Your task to perform on an android device: Open eBay Image 0: 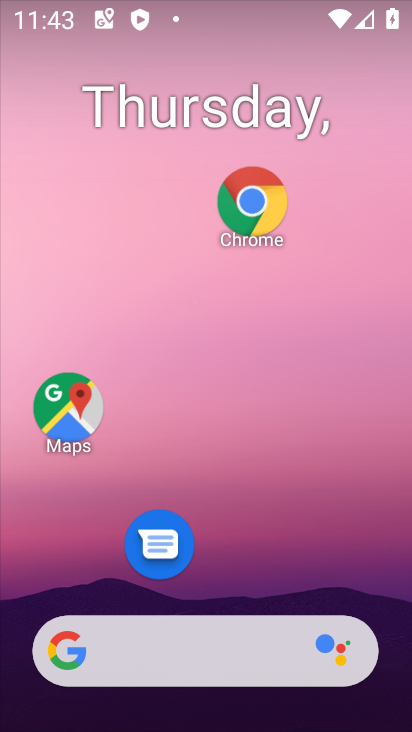
Step 0: click (250, 188)
Your task to perform on an android device: Open eBay Image 1: 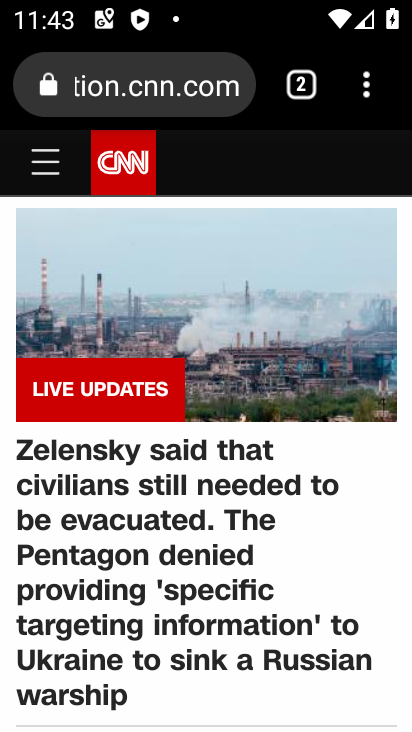
Step 1: click (308, 71)
Your task to perform on an android device: Open eBay Image 2: 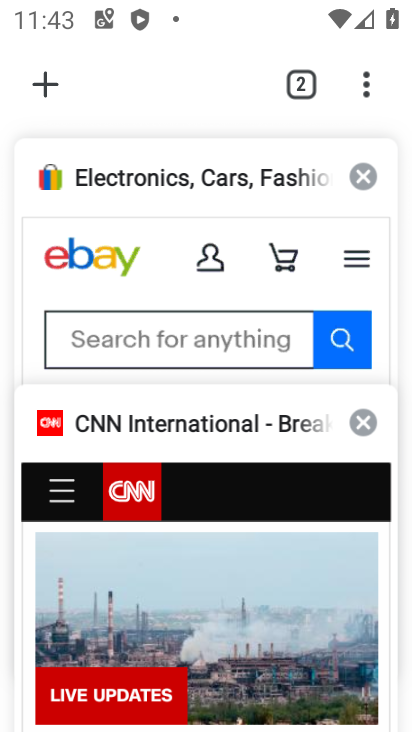
Step 2: click (362, 171)
Your task to perform on an android device: Open eBay Image 3: 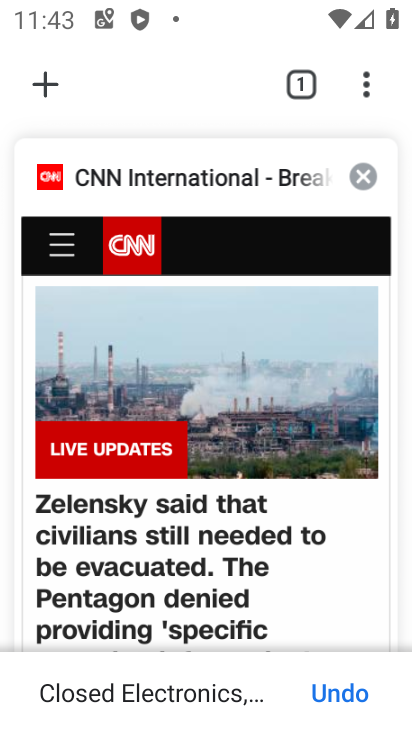
Step 3: click (362, 171)
Your task to perform on an android device: Open eBay Image 4: 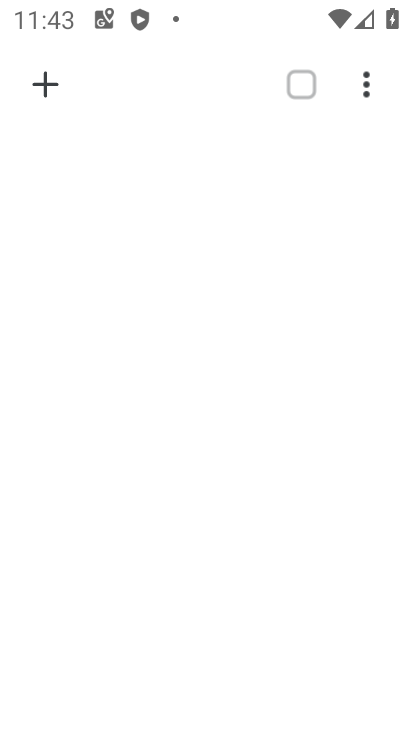
Step 4: click (51, 90)
Your task to perform on an android device: Open eBay Image 5: 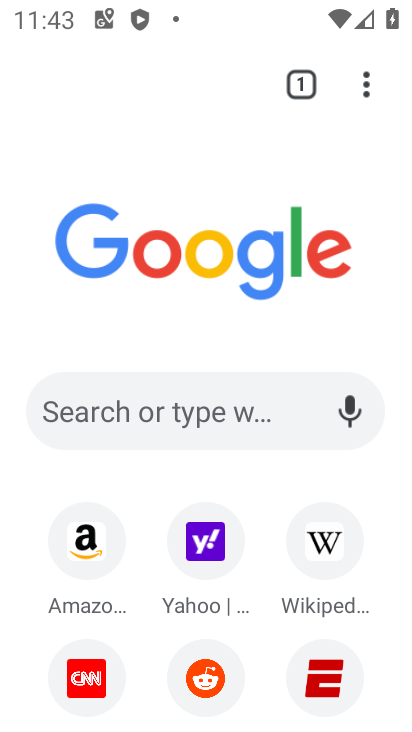
Step 5: drag from (151, 630) to (171, 154)
Your task to perform on an android device: Open eBay Image 6: 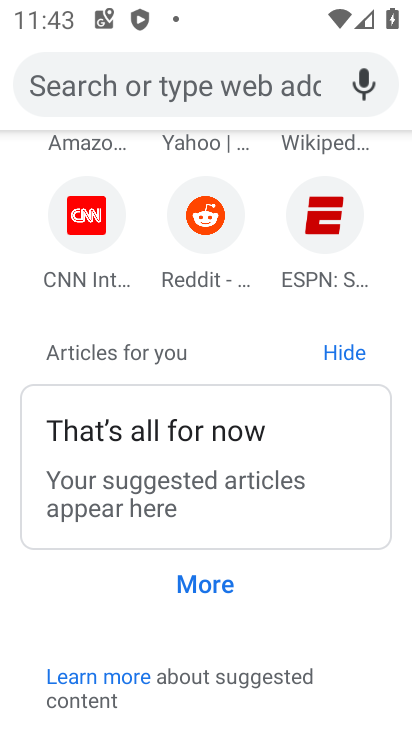
Step 6: drag from (226, 338) to (234, 628)
Your task to perform on an android device: Open eBay Image 7: 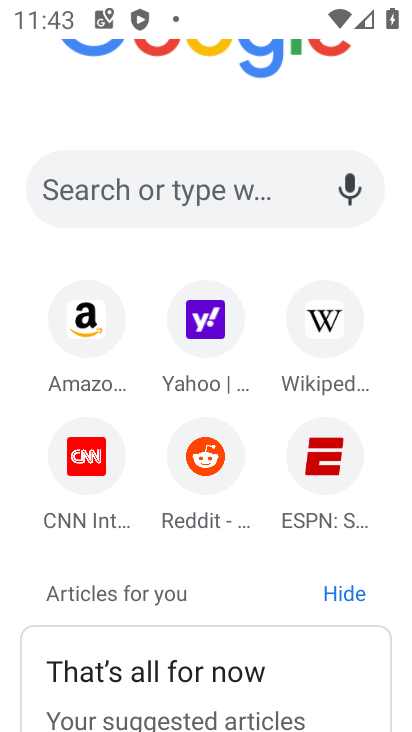
Step 7: click (172, 183)
Your task to perform on an android device: Open eBay Image 8: 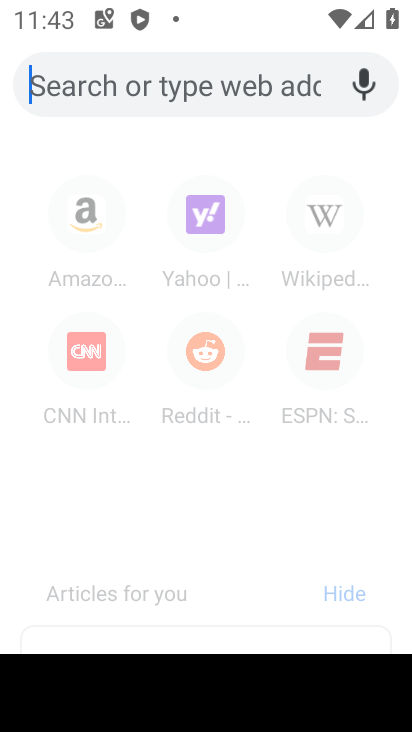
Step 8: type "ebay"
Your task to perform on an android device: Open eBay Image 9: 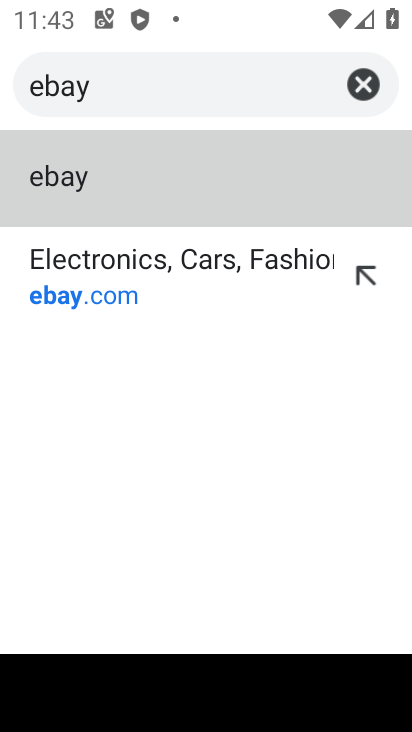
Step 9: click (159, 292)
Your task to perform on an android device: Open eBay Image 10: 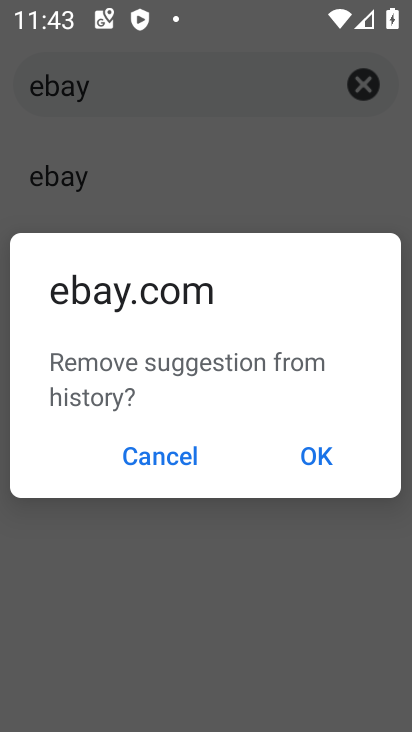
Step 10: click (151, 454)
Your task to perform on an android device: Open eBay Image 11: 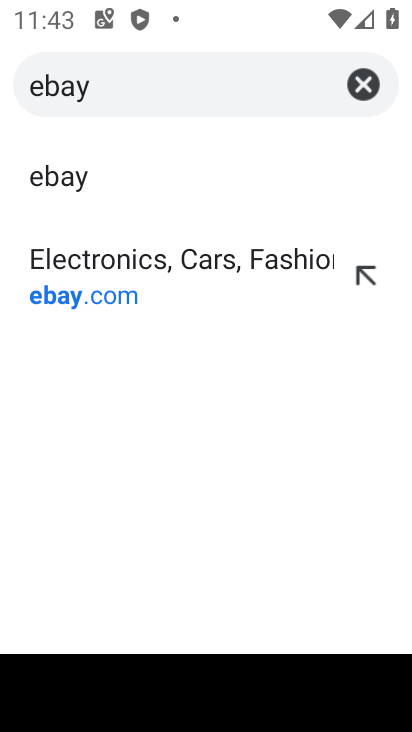
Step 11: click (126, 284)
Your task to perform on an android device: Open eBay Image 12: 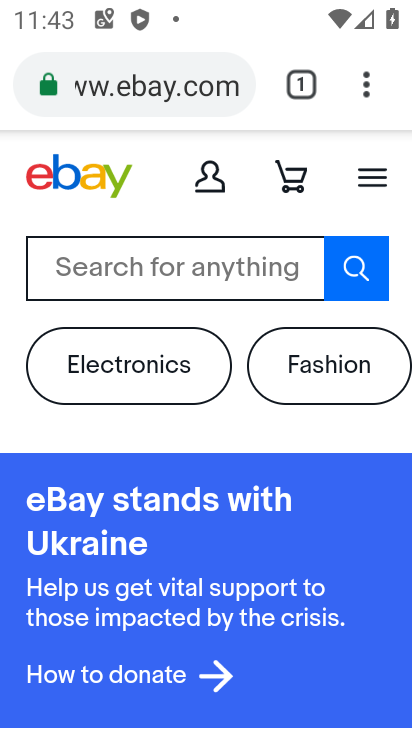
Step 12: drag from (201, 559) to (199, 126)
Your task to perform on an android device: Open eBay Image 13: 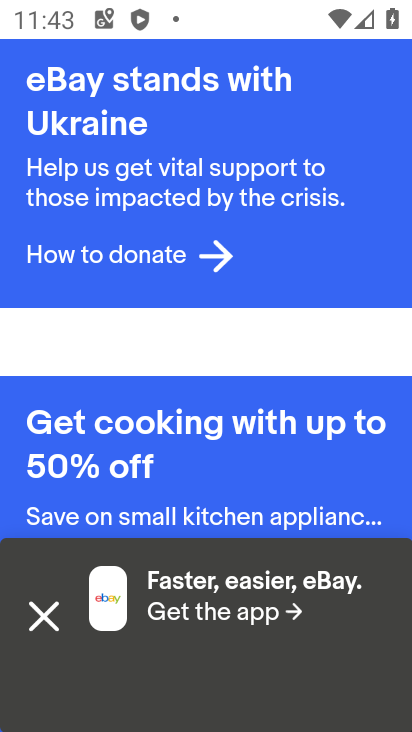
Step 13: click (45, 614)
Your task to perform on an android device: Open eBay Image 14: 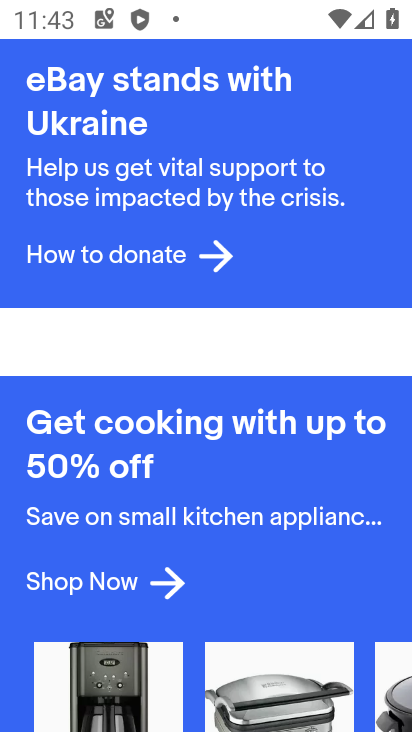
Step 14: task complete